Your task to perform on an android device: Open the phone app and click the voicemail tab. Image 0: 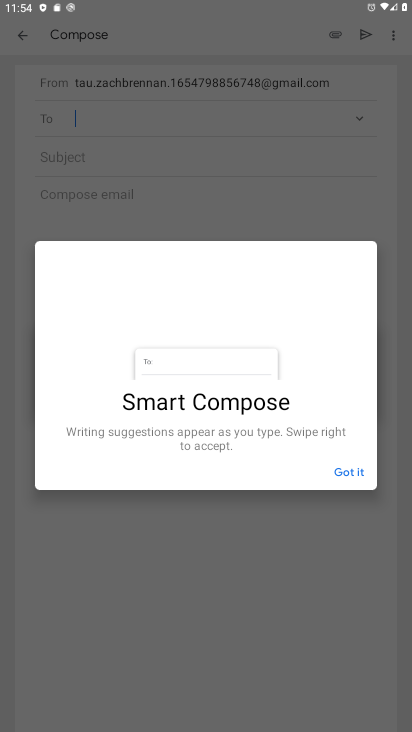
Step 0: click (262, 658)
Your task to perform on an android device: Open the phone app and click the voicemail tab. Image 1: 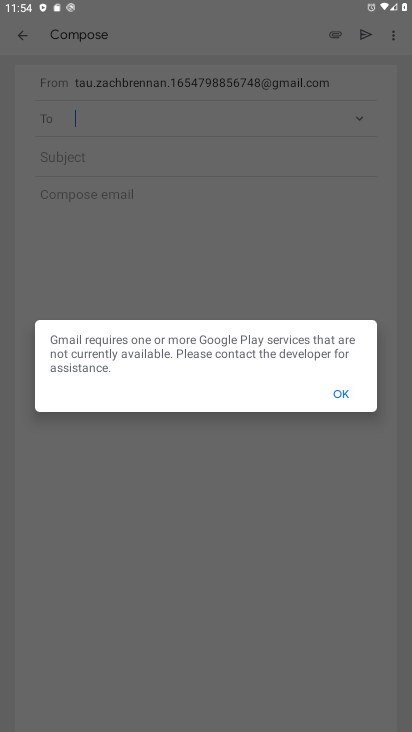
Step 1: press home button
Your task to perform on an android device: Open the phone app and click the voicemail tab. Image 2: 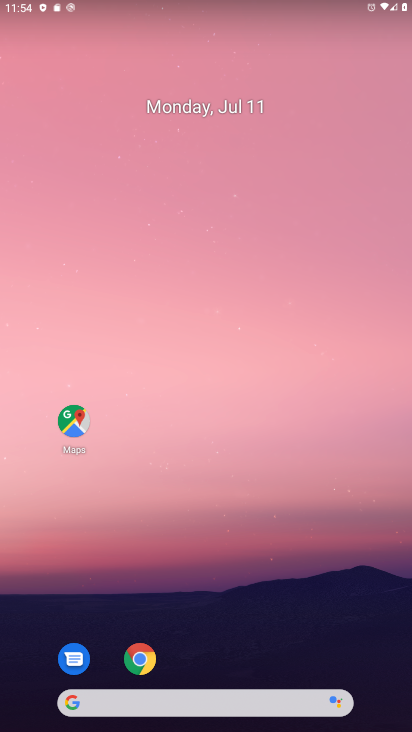
Step 2: drag from (187, 636) to (212, 197)
Your task to perform on an android device: Open the phone app and click the voicemail tab. Image 3: 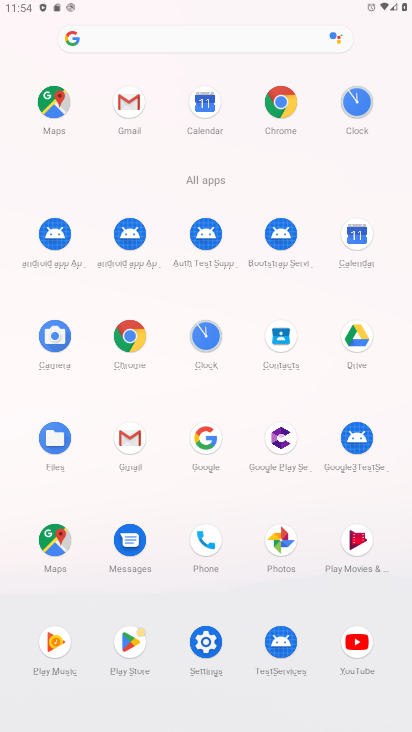
Step 3: click (204, 547)
Your task to perform on an android device: Open the phone app and click the voicemail tab. Image 4: 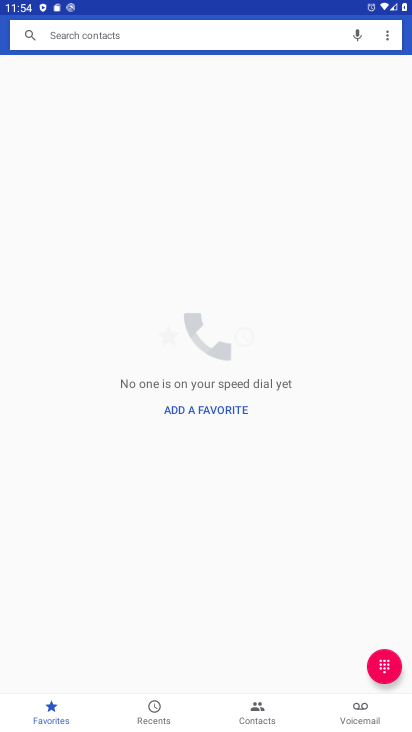
Step 4: click (364, 723)
Your task to perform on an android device: Open the phone app and click the voicemail tab. Image 5: 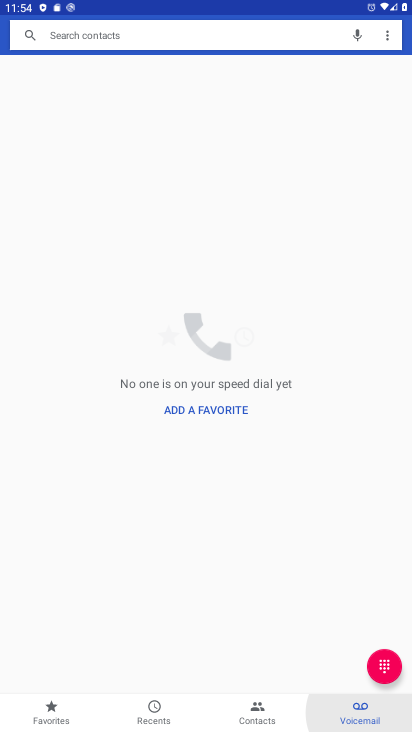
Step 5: click (364, 723)
Your task to perform on an android device: Open the phone app and click the voicemail tab. Image 6: 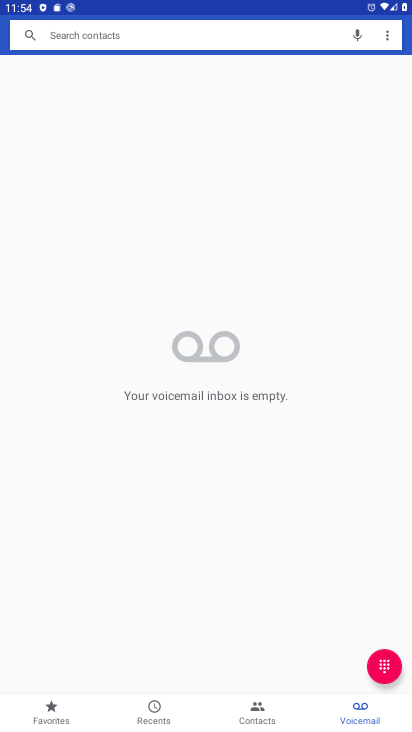
Step 6: drag from (190, 645) to (200, 532)
Your task to perform on an android device: Open the phone app and click the voicemail tab. Image 7: 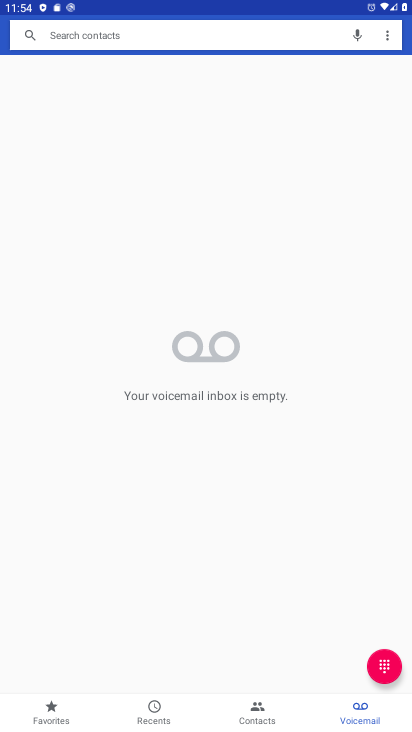
Step 7: click (358, 718)
Your task to perform on an android device: Open the phone app and click the voicemail tab. Image 8: 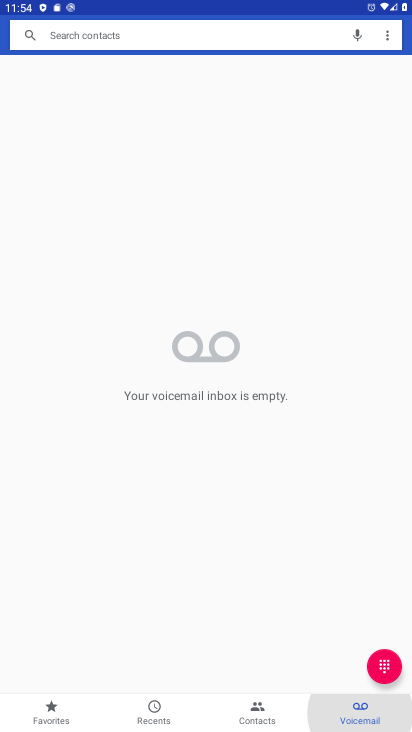
Step 8: drag from (220, 573) to (234, 271)
Your task to perform on an android device: Open the phone app and click the voicemail tab. Image 9: 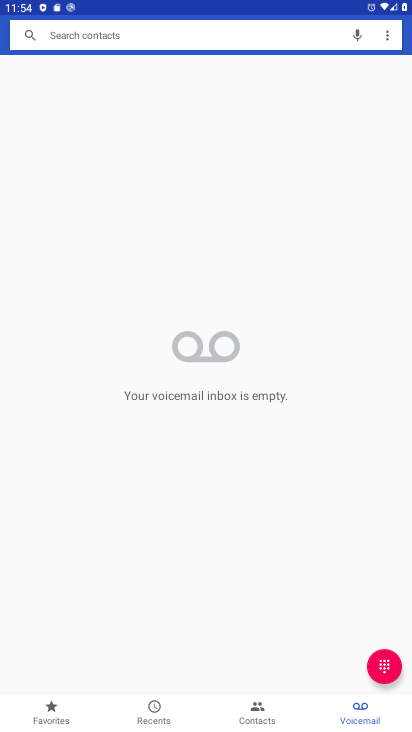
Step 9: drag from (152, 622) to (217, 416)
Your task to perform on an android device: Open the phone app and click the voicemail tab. Image 10: 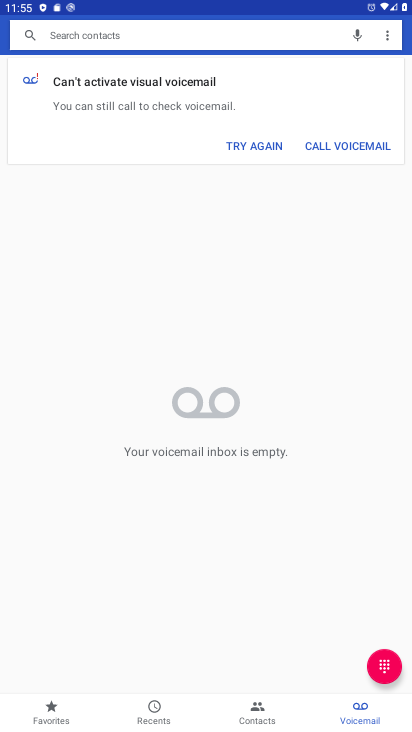
Step 10: click (364, 711)
Your task to perform on an android device: Open the phone app and click the voicemail tab. Image 11: 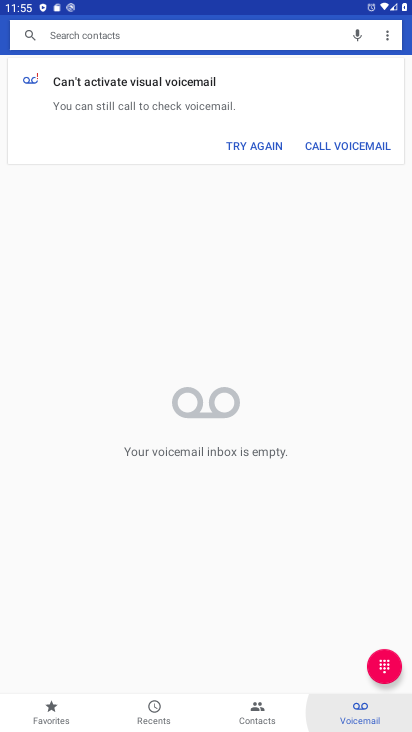
Step 11: drag from (243, 562) to (270, 293)
Your task to perform on an android device: Open the phone app and click the voicemail tab. Image 12: 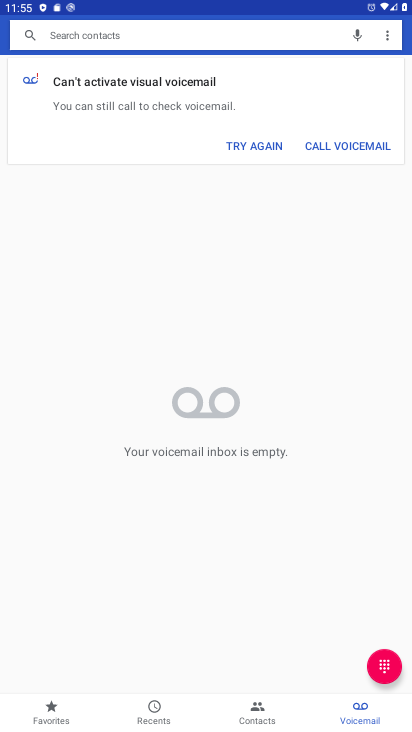
Step 12: click (245, 413)
Your task to perform on an android device: Open the phone app and click the voicemail tab. Image 13: 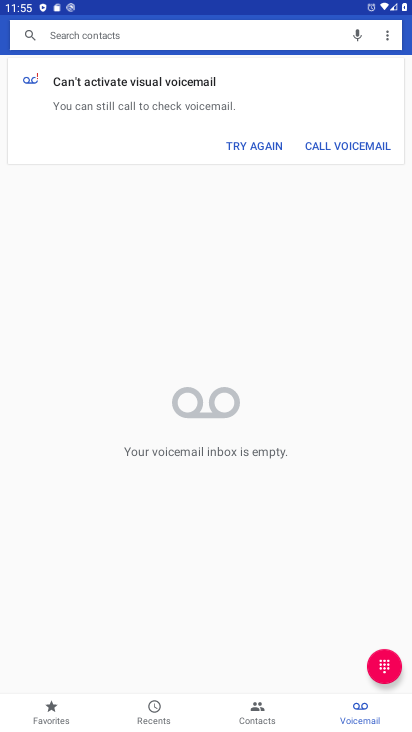
Step 13: click (357, 702)
Your task to perform on an android device: Open the phone app and click the voicemail tab. Image 14: 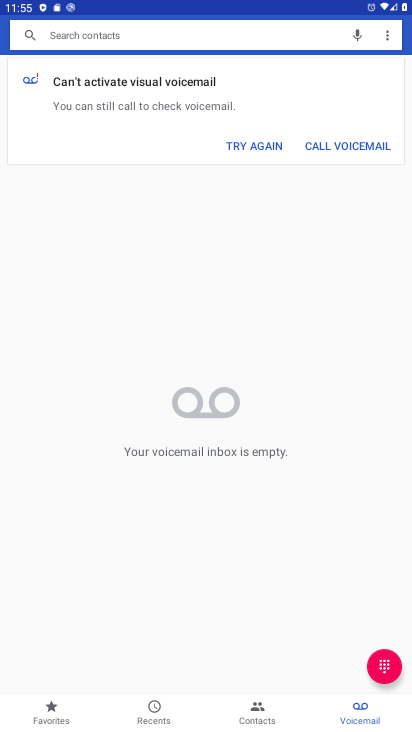
Step 14: click (358, 727)
Your task to perform on an android device: Open the phone app and click the voicemail tab. Image 15: 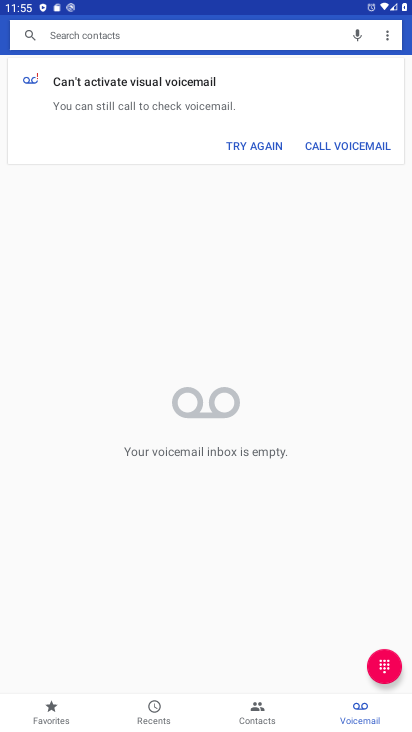
Step 15: task complete